Your task to perform on an android device: Open notification settings Image 0: 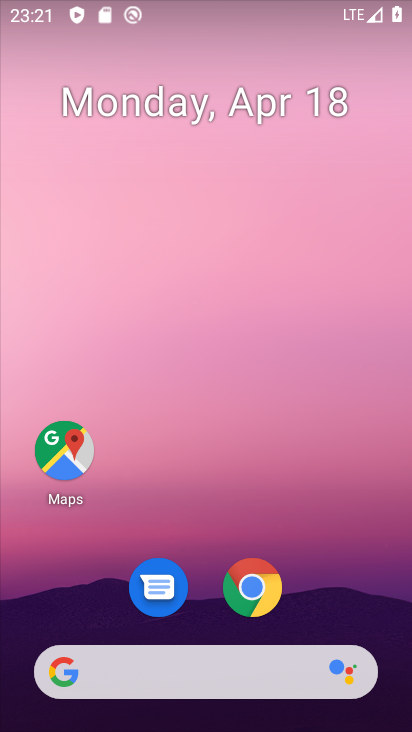
Step 0: drag from (362, 604) to (372, 251)
Your task to perform on an android device: Open notification settings Image 1: 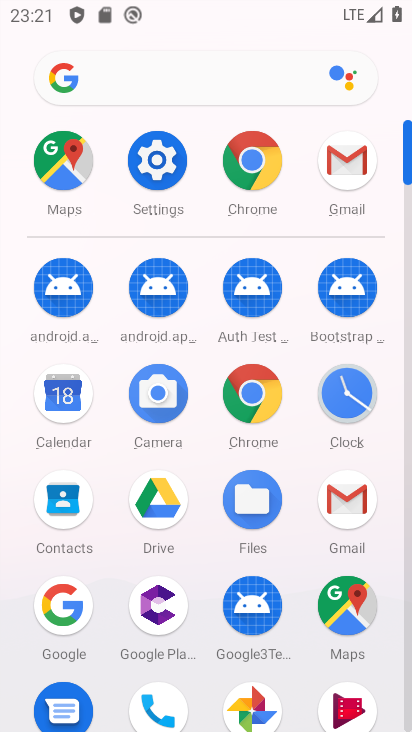
Step 1: click (156, 174)
Your task to perform on an android device: Open notification settings Image 2: 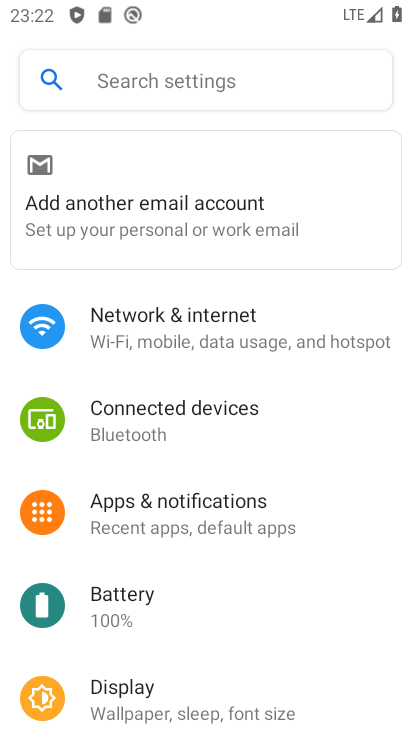
Step 2: click (256, 506)
Your task to perform on an android device: Open notification settings Image 3: 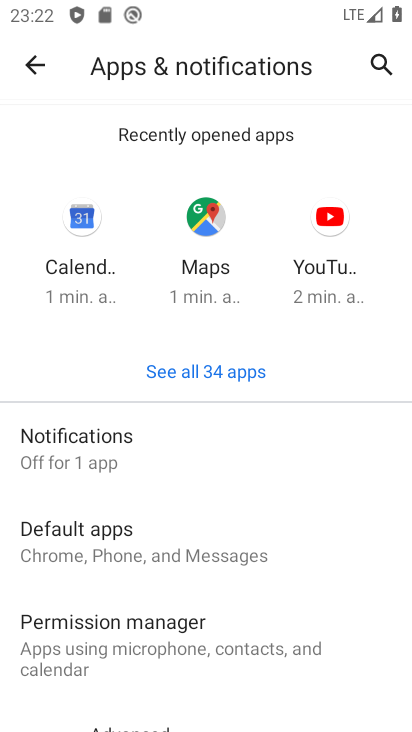
Step 3: click (116, 448)
Your task to perform on an android device: Open notification settings Image 4: 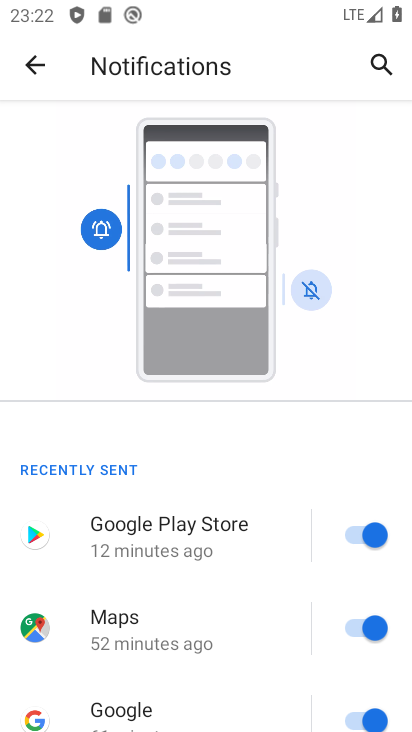
Step 4: task complete